Your task to perform on an android device: Play the last video I watched on Youtube Image 0: 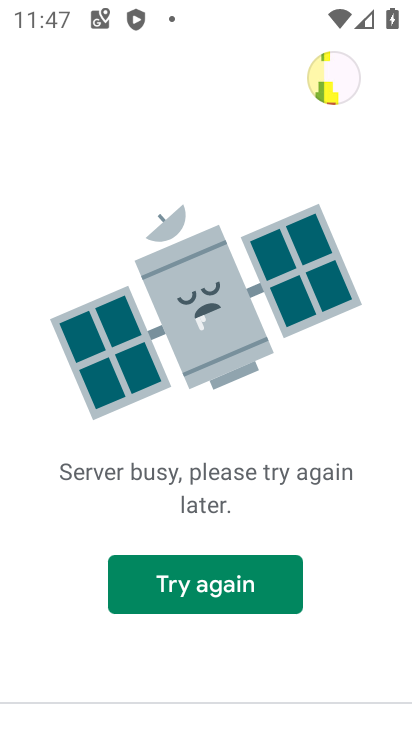
Step 0: press home button
Your task to perform on an android device: Play the last video I watched on Youtube Image 1: 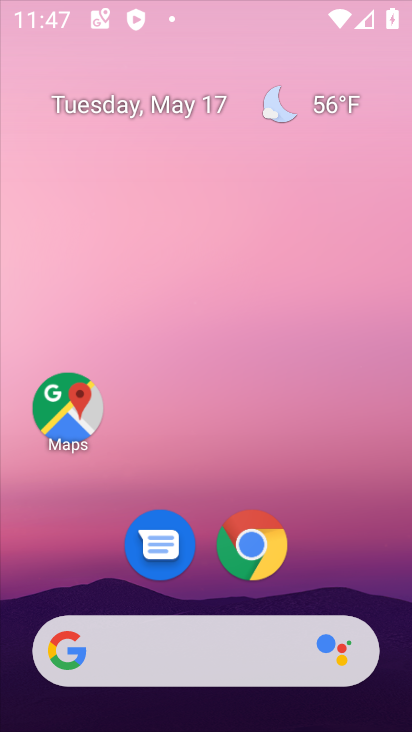
Step 1: drag from (199, 686) to (301, 60)
Your task to perform on an android device: Play the last video I watched on Youtube Image 2: 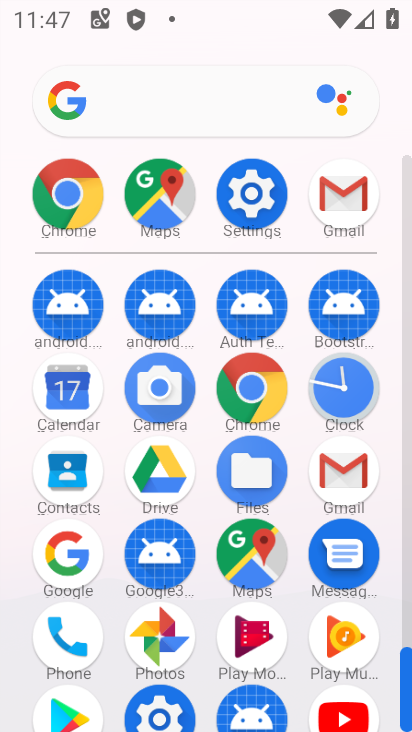
Step 2: click (362, 695)
Your task to perform on an android device: Play the last video I watched on Youtube Image 3: 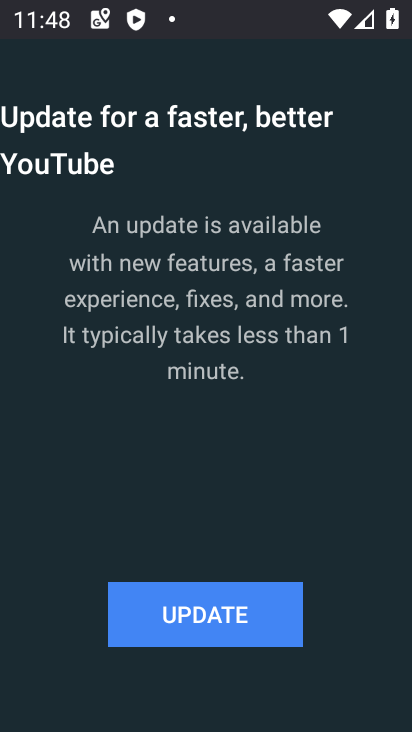
Step 3: task complete